Your task to perform on an android device: Open Chrome and go to the settings page Image 0: 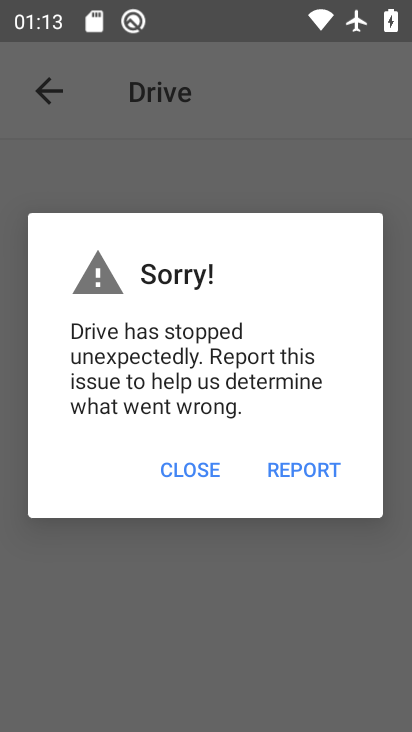
Step 0: press home button
Your task to perform on an android device: Open Chrome and go to the settings page Image 1: 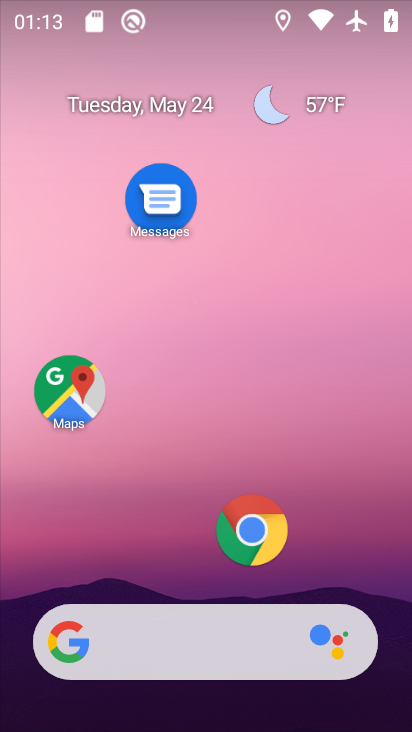
Step 1: click (251, 535)
Your task to perform on an android device: Open Chrome and go to the settings page Image 2: 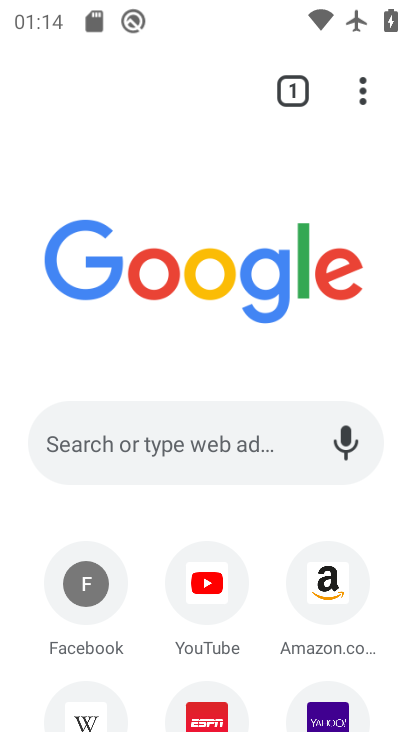
Step 2: click (361, 96)
Your task to perform on an android device: Open Chrome and go to the settings page Image 3: 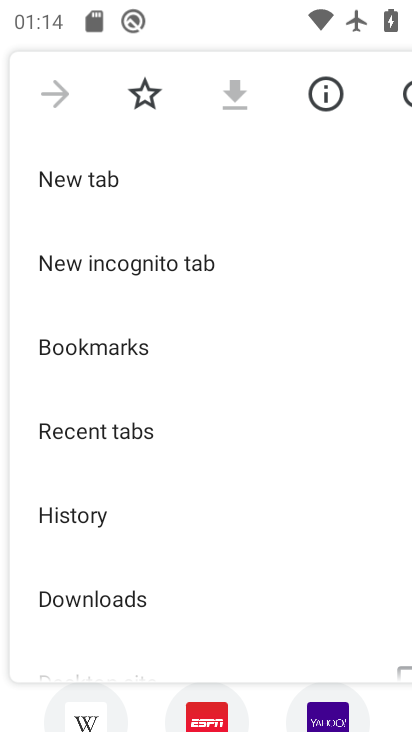
Step 3: drag from (126, 543) to (105, 250)
Your task to perform on an android device: Open Chrome and go to the settings page Image 4: 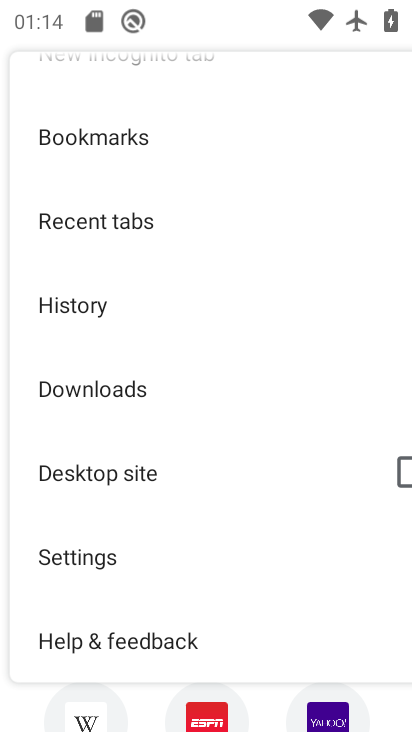
Step 4: click (101, 553)
Your task to perform on an android device: Open Chrome and go to the settings page Image 5: 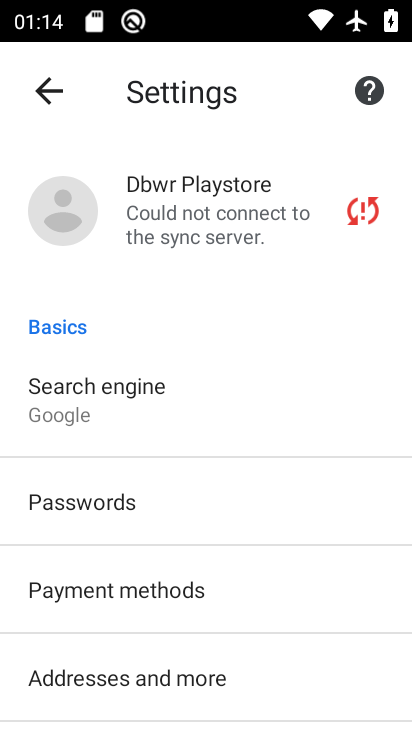
Step 5: task complete